Your task to perform on an android device: turn off airplane mode Image 0: 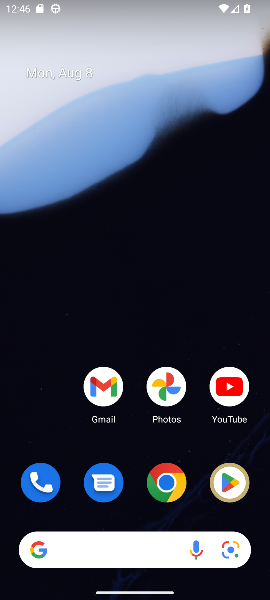
Step 0: drag from (143, 547) to (142, 145)
Your task to perform on an android device: turn off airplane mode Image 1: 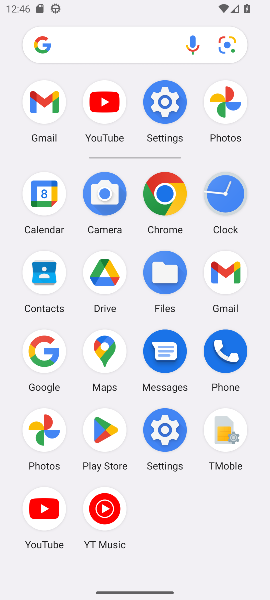
Step 1: click (155, 96)
Your task to perform on an android device: turn off airplane mode Image 2: 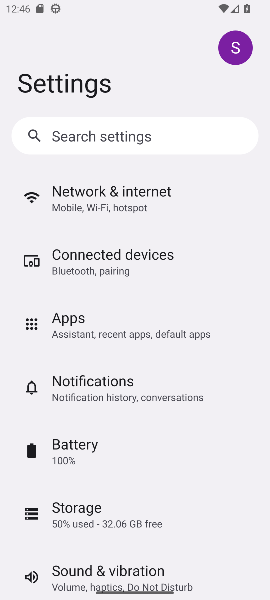
Step 2: click (98, 192)
Your task to perform on an android device: turn off airplane mode Image 3: 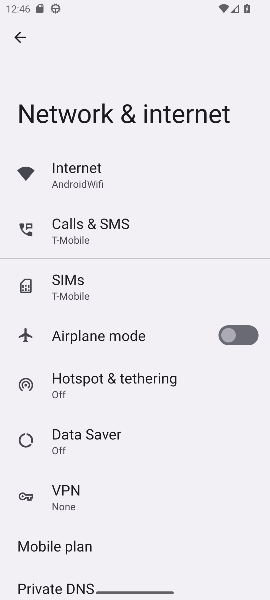
Step 3: task complete